Your task to perform on an android device: change text size in settings app Image 0: 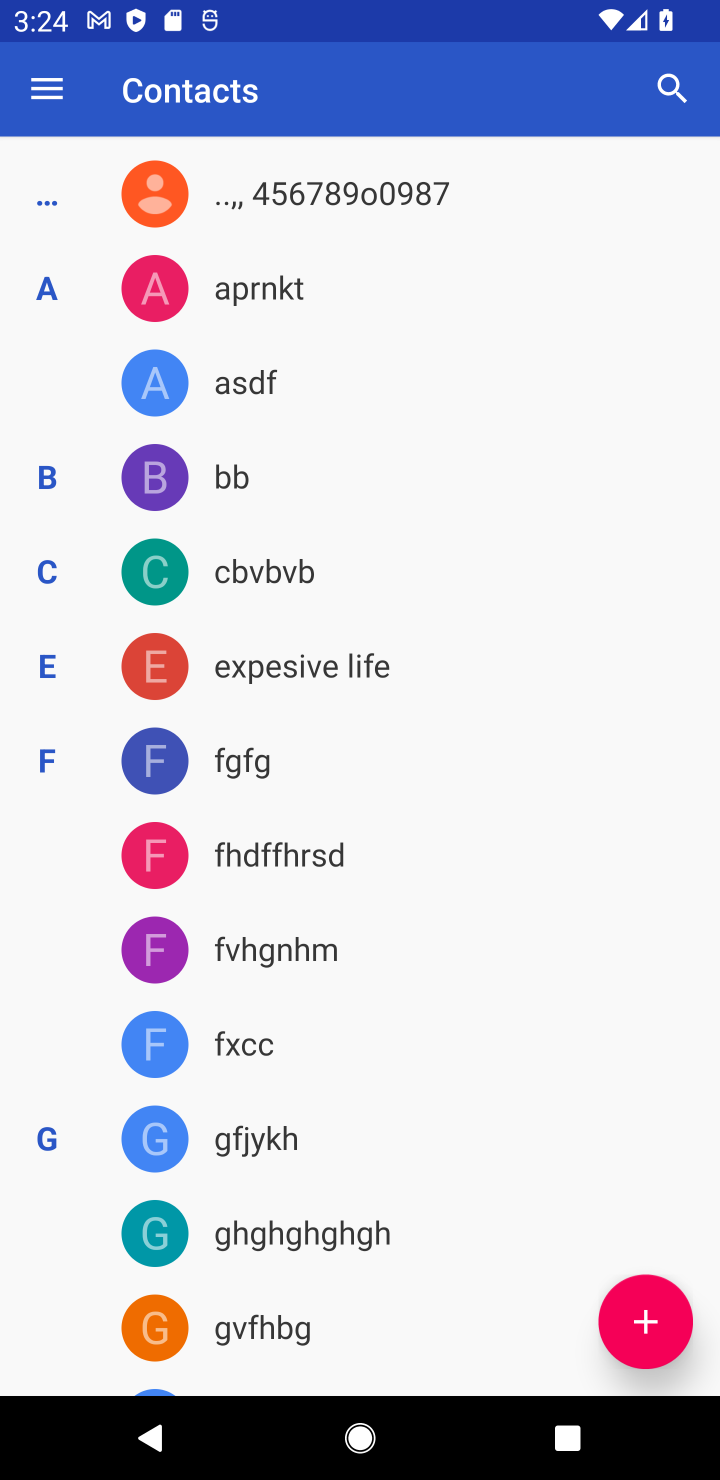
Step 0: press home button
Your task to perform on an android device: change text size in settings app Image 1: 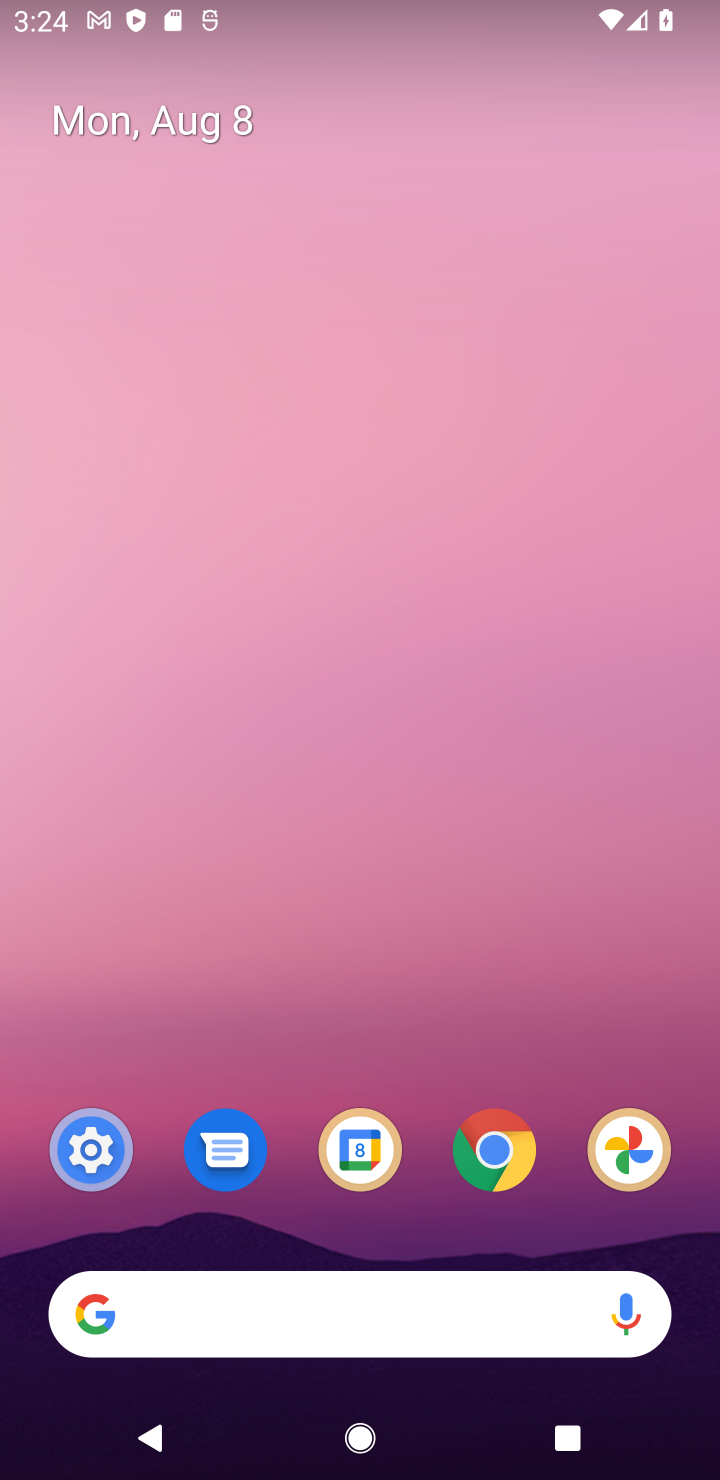
Step 1: drag from (438, 1242) to (257, 296)
Your task to perform on an android device: change text size in settings app Image 2: 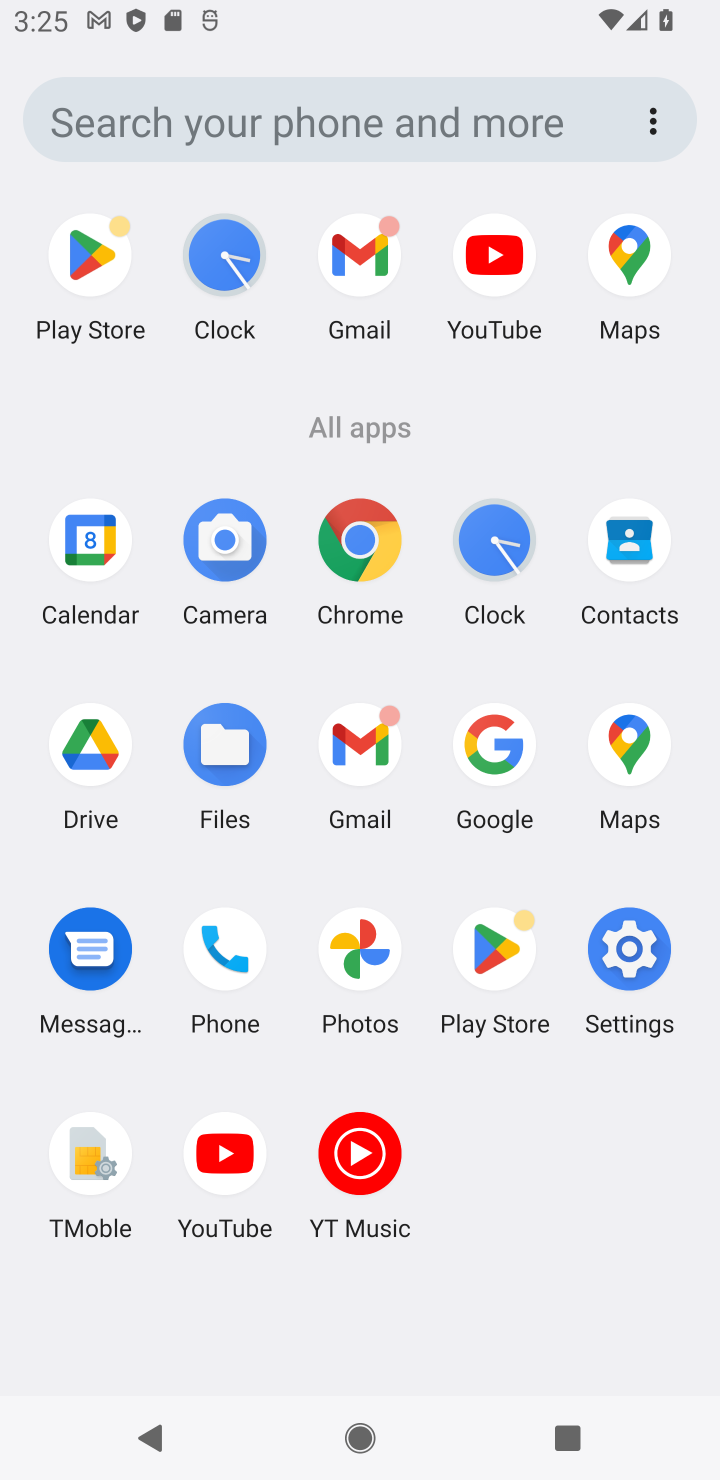
Step 2: click (590, 956)
Your task to perform on an android device: change text size in settings app Image 3: 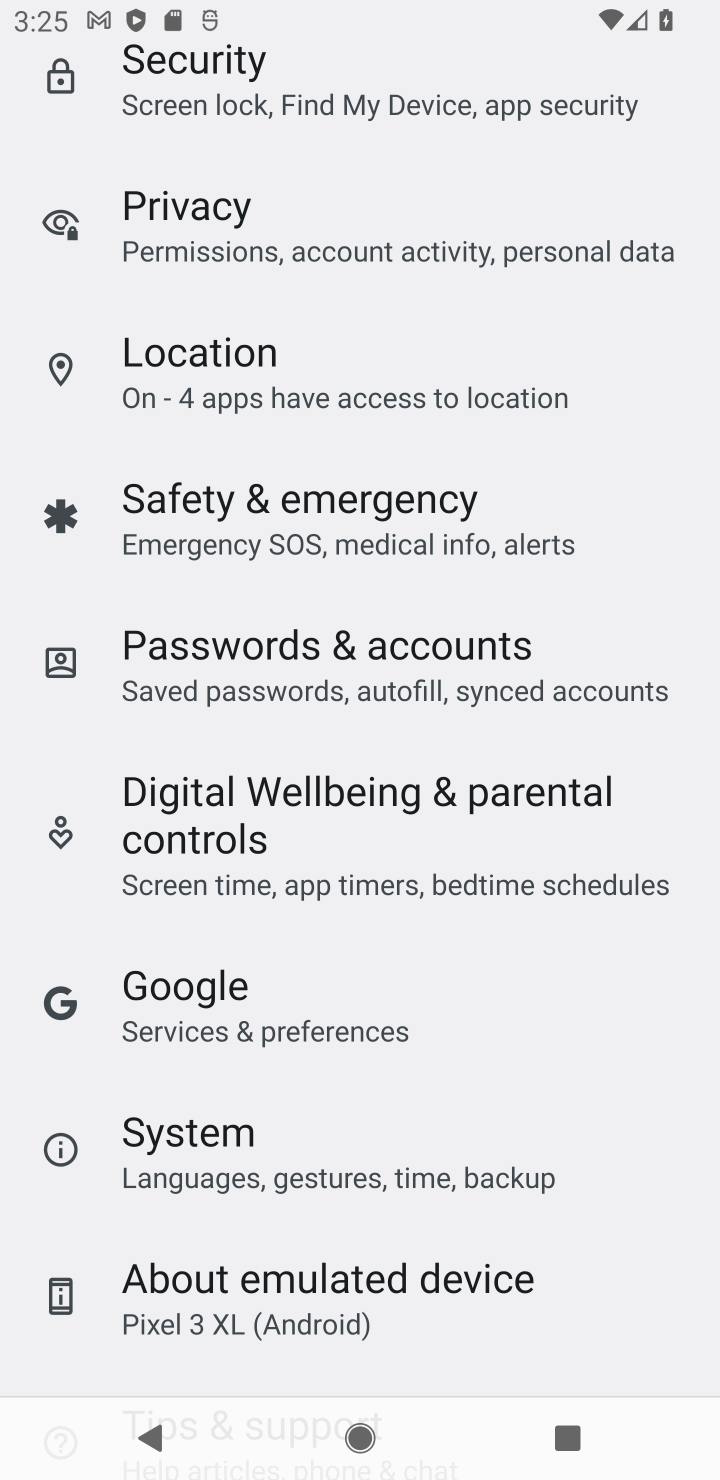
Step 3: task complete